Your task to perform on an android device: Open Google Chrome and click the shortcut for Amazon.com Image 0: 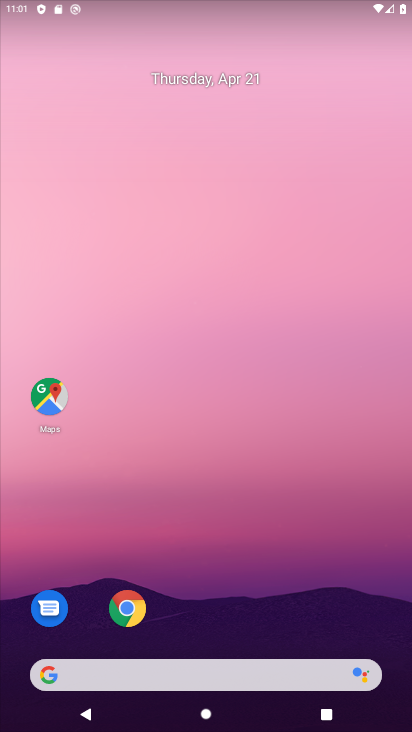
Step 0: click (139, 608)
Your task to perform on an android device: Open Google Chrome and click the shortcut for Amazon.com Image 1: 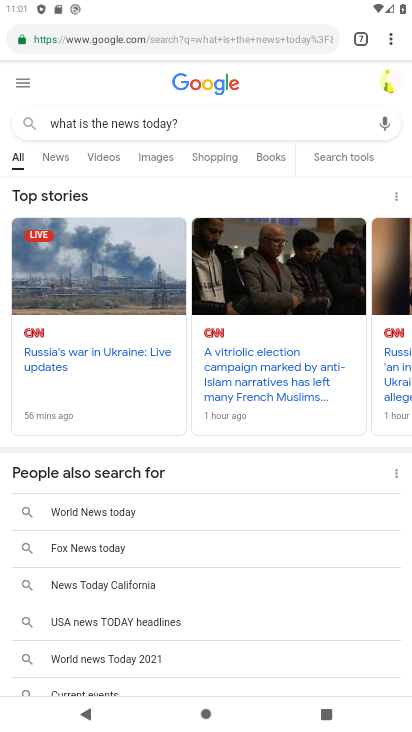
Step 1: click (365, 39)
Your task to perform on an android device: Open Google Chrome and click the shortcut for Amazon.com Image 2: 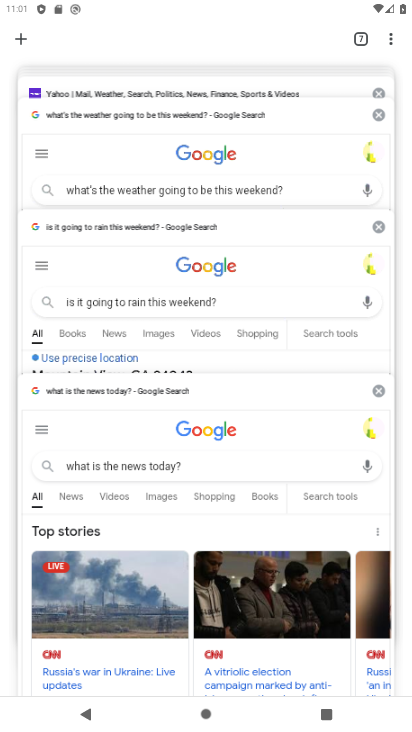
Step 2: click (18, 47)
Your task to perform on an android device: Open Google Chrome and click the shortcut for Amazon.com Image 3: 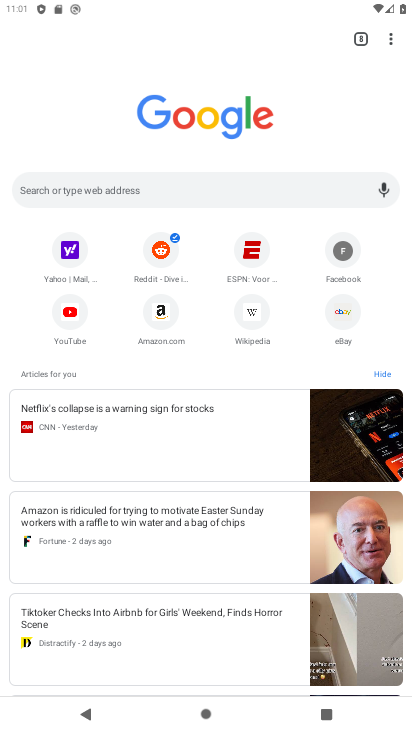
Step 3: click (155, 304)
Your task to perform on an android device: Open Google Chrome and click the shortcut for Amazon.com Image 4: 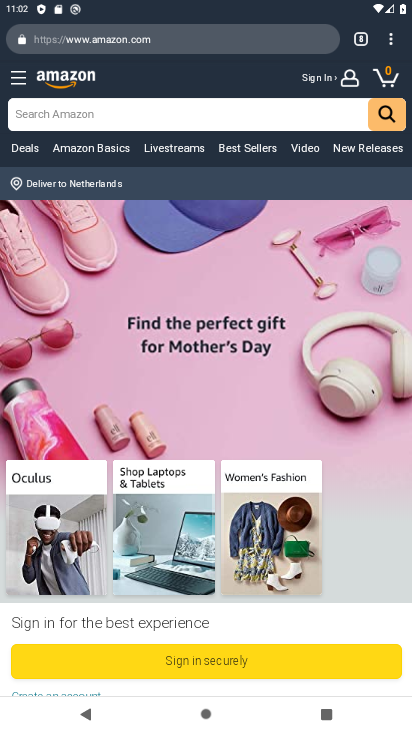
Step 4: task complete